Your task to perform on an android device: make emails show in primary in the gmail app Image 0: 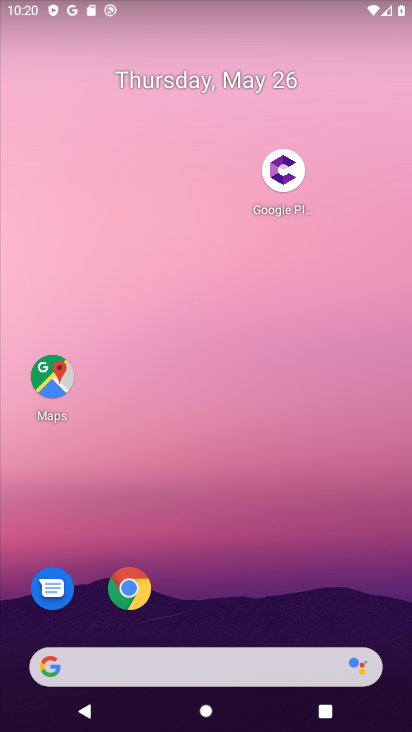
Step 0: drag from (259, 479) to (124, 0)
Your task to perform on an android device: make emails show in primary in the gmail app Image 1: 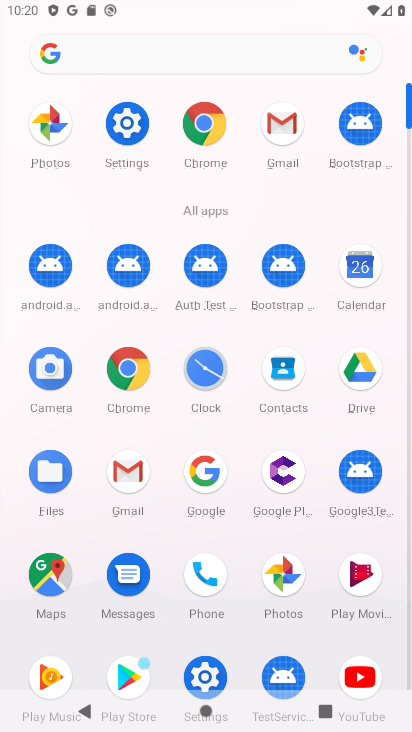
Step 1: click (134, 473)
Your task to perform on an android device: make emails show in primary in the gmail app Image 2: 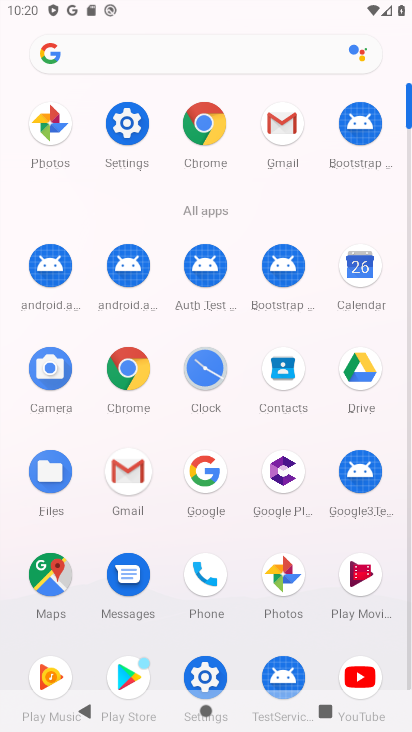
Step 2: click (134, 474)
Your task to perform on an android device: make emails show in primary in the gmail app Image 3: 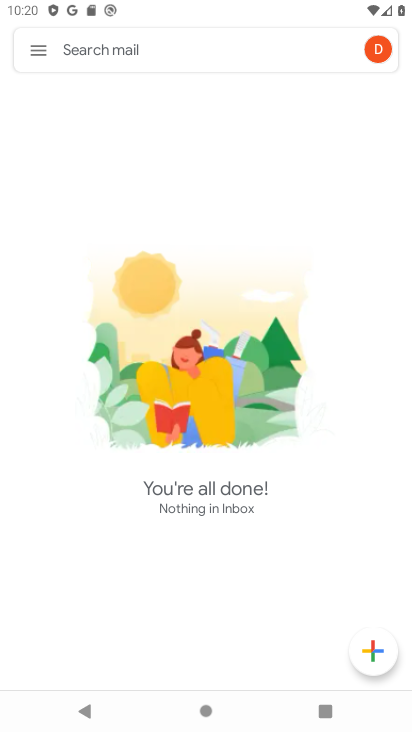
Step 3: click (135, 475)
Your task to perform on an android device: make emails show in primary in the gmail app Image 4: 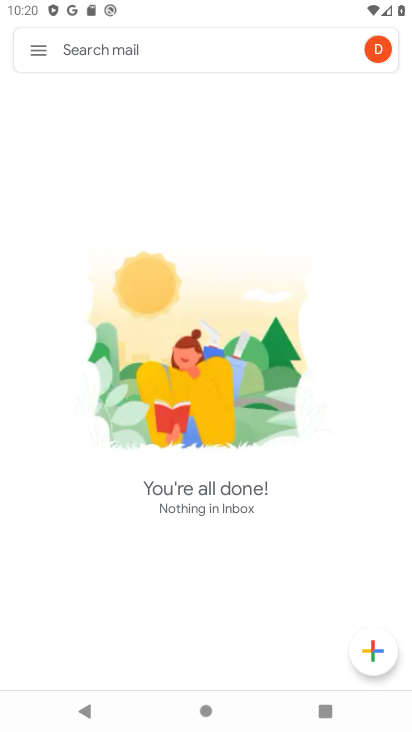
Step 4: click (41, 48)
Your task to perform on an android device: make emails show in primary in the gmail app Image 5: 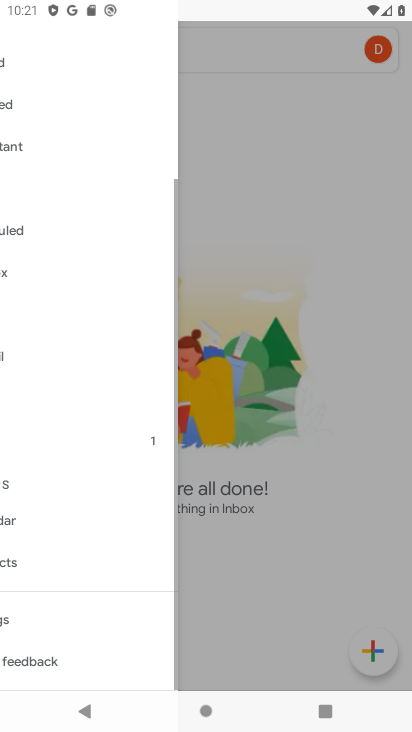
Step 5: click (39, 49)
Your task to perform on an android device: make emails show in primary in the gmail app Image 6: 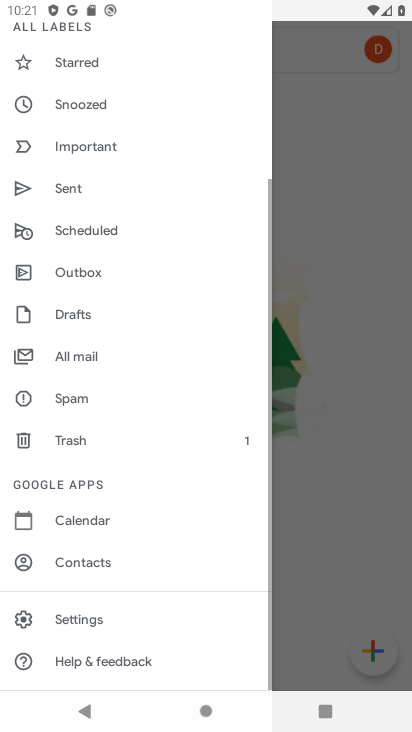
Step 6: click (39, 49)
Your task to perform on an android device: make emails show in primary in the gmail app Image 7: 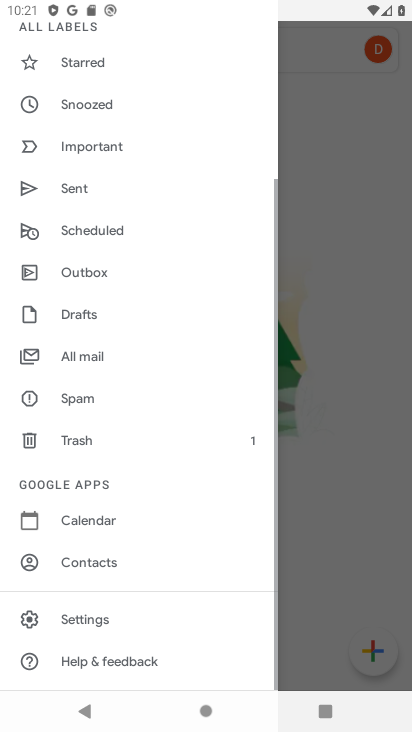
Step 7: click (39, 49)
Your task to perform on an android device: make emails show in primary in the gmail app Image 8: 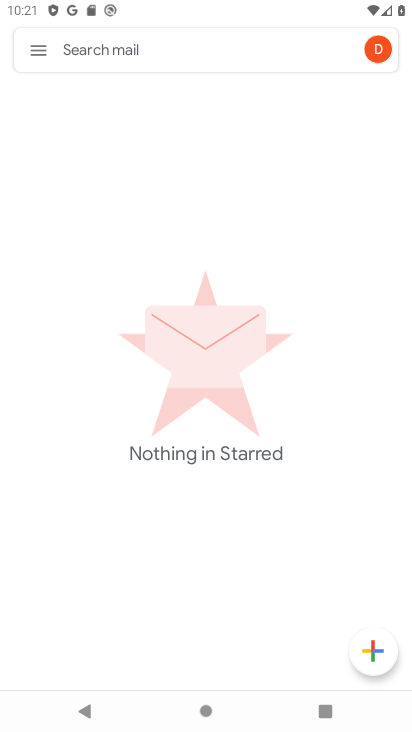
Step 8: click (22, 56)
Your task to perform on an android device: make emails show in primary in the gmail app Image 9: 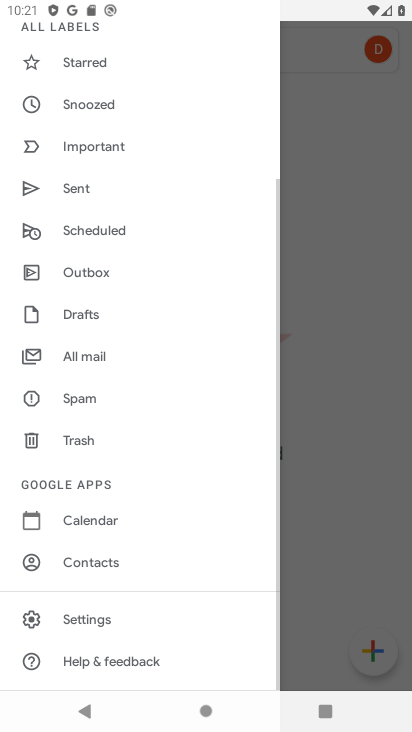
Step 9: click (90, 616)
Your task to perform on an android device: make emails show in primary in the gmail app Image 10: 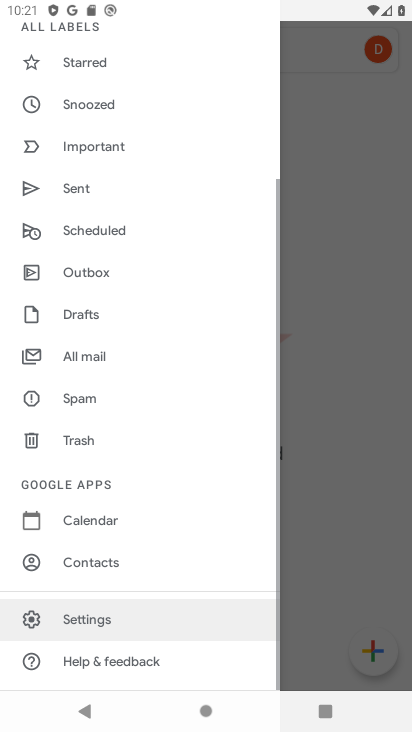
Step 10: click (84, 621)
Your task to perform on an android device: make emails show in primary in the gmail app Image 11: 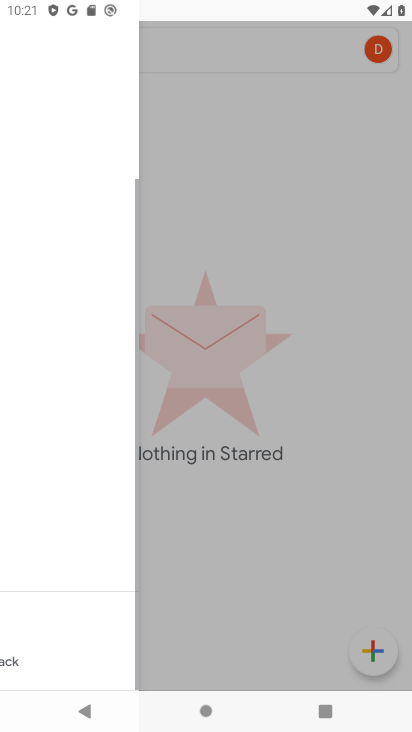
Step 11: click (84, 621)
Your task to perform on an android device: make emails show in primary in the gmail app Image 12: 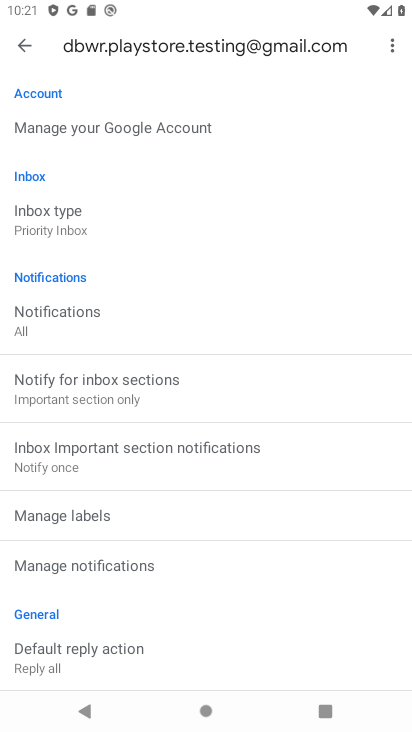
Step 12: click (32, 218)
Your task to perform on an android device: make emails show in primary in the gmail app Image 13: 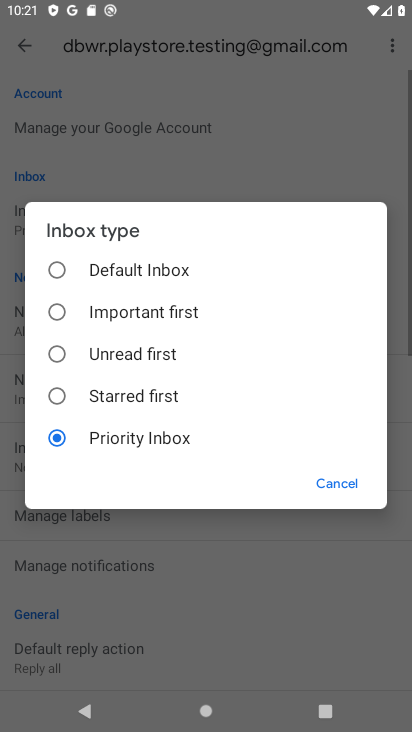
Step 13: click (58, 213)
Your task to perform on an android device: make emails show in primary in the gmail app Image 14: 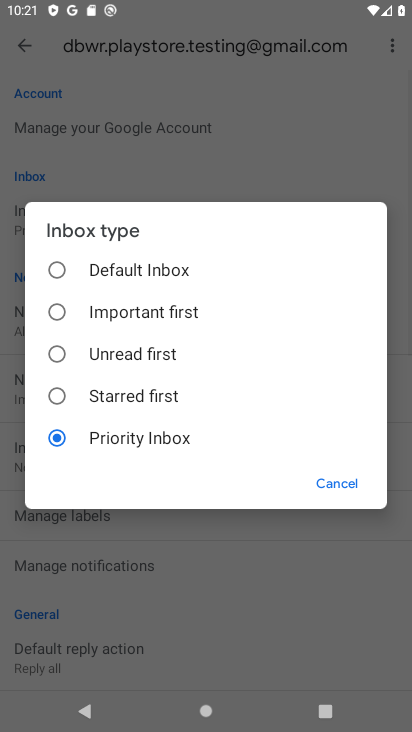
Step 14: click (52, 263)
Your task to perform on an android device: make emails show in primary in the gmail app Image 15: 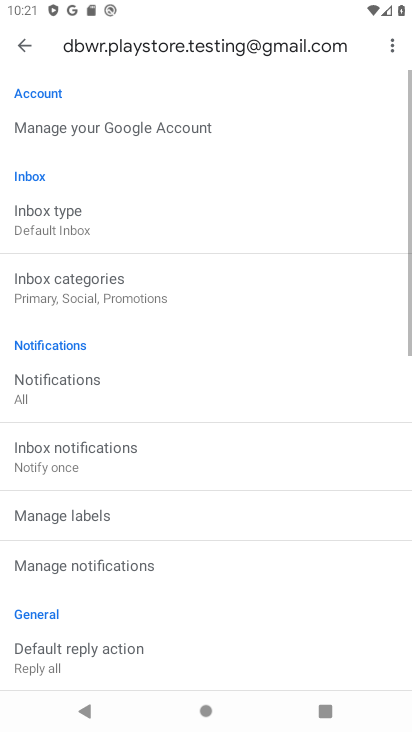
Step 15: click (55, 285)
Your task to perform on an android device: make emails show in primary in the gmail app Image 16: 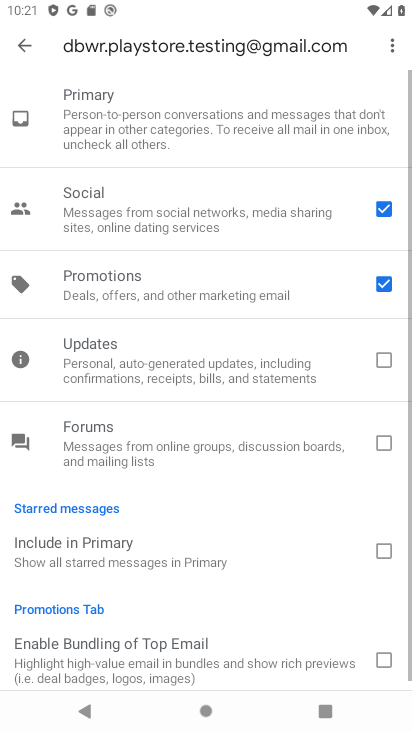
Step 16: click (89, 128)
Your task to perform on an android device: make emails show in primary in the gmail app Image 17: 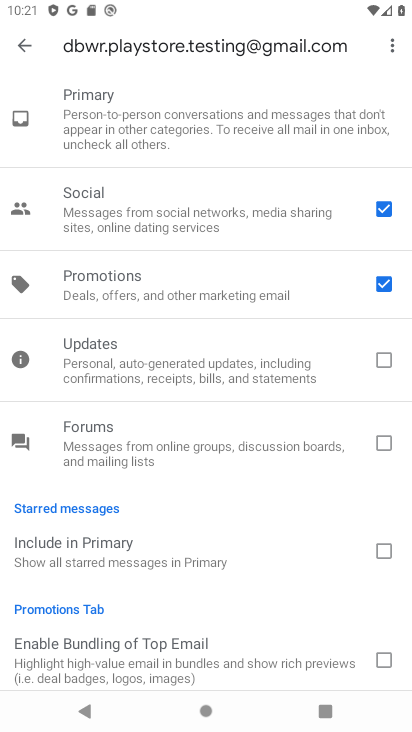
Step 17: click (124, 123)
Your task to perform on an android device: make emails show in primary in the gmail app Image 18: 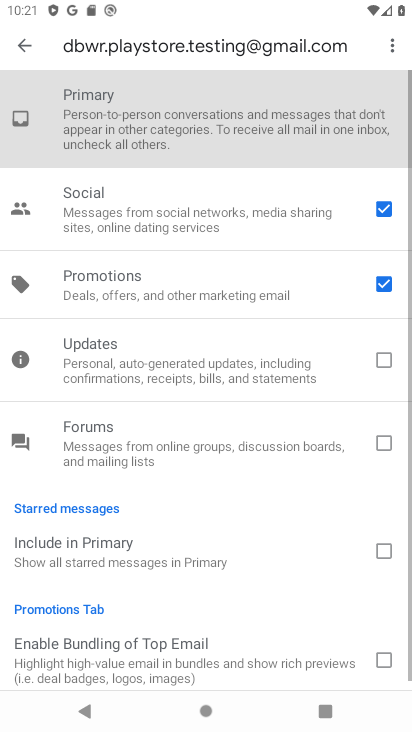
Step 18: click (127, 119)
Your task to perform on an android device: make emails show in primary in the gmail app Image 19: 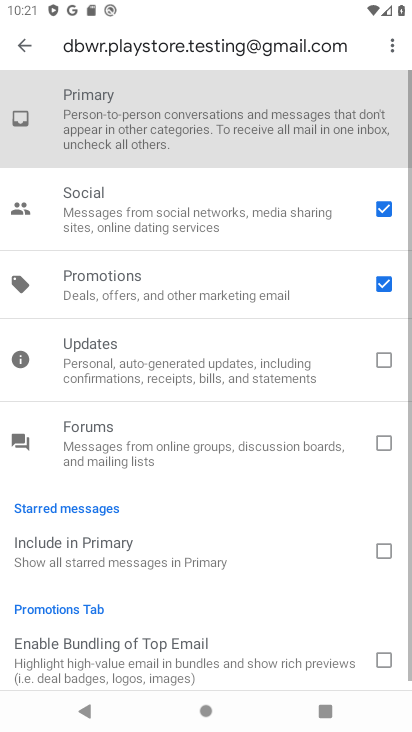
Step 19: click (127, 119)
Your task to perform on an android device: make emails show in primary in the gmail app Image 20: 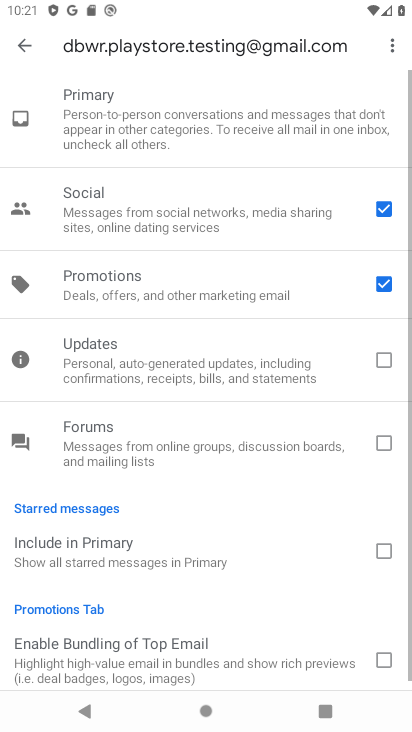
Step 20: click (128, 118)
Your task to perform on an android device: make emails show in primary in the gmail app Image 21: 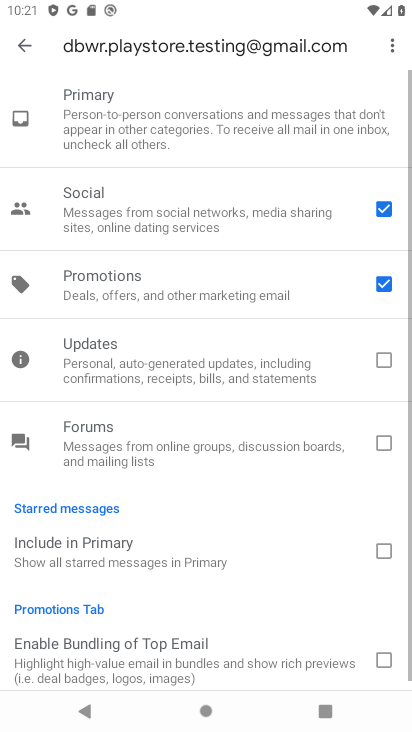
Step 21: click (128, 118)
Your task to perform on an android device: make emails show in primary in the gmail app Image 22: 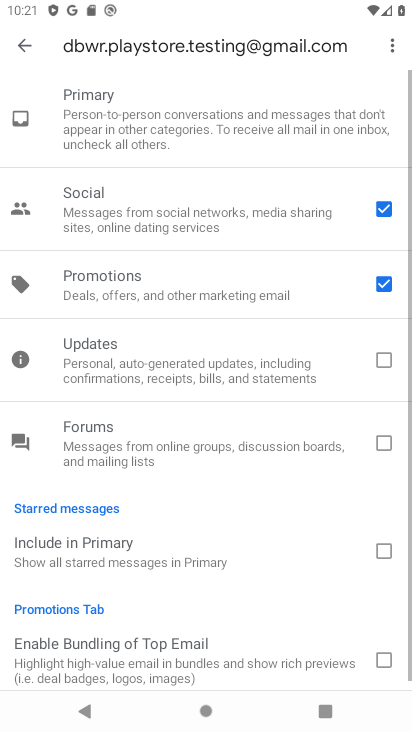
Step 22: click (144, 94)
Your task to perform on an android device: make emails show in primary in the gmail app Image 23: 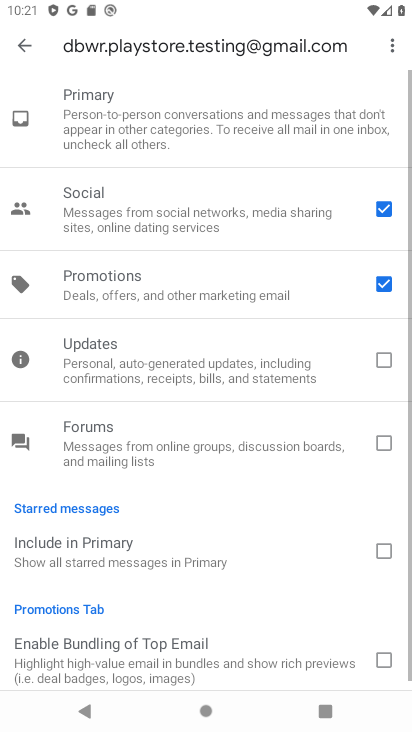
Step 23: task complete